Your task to perform on an android device: Clear the shopping cart on walmart.com. Image 0: 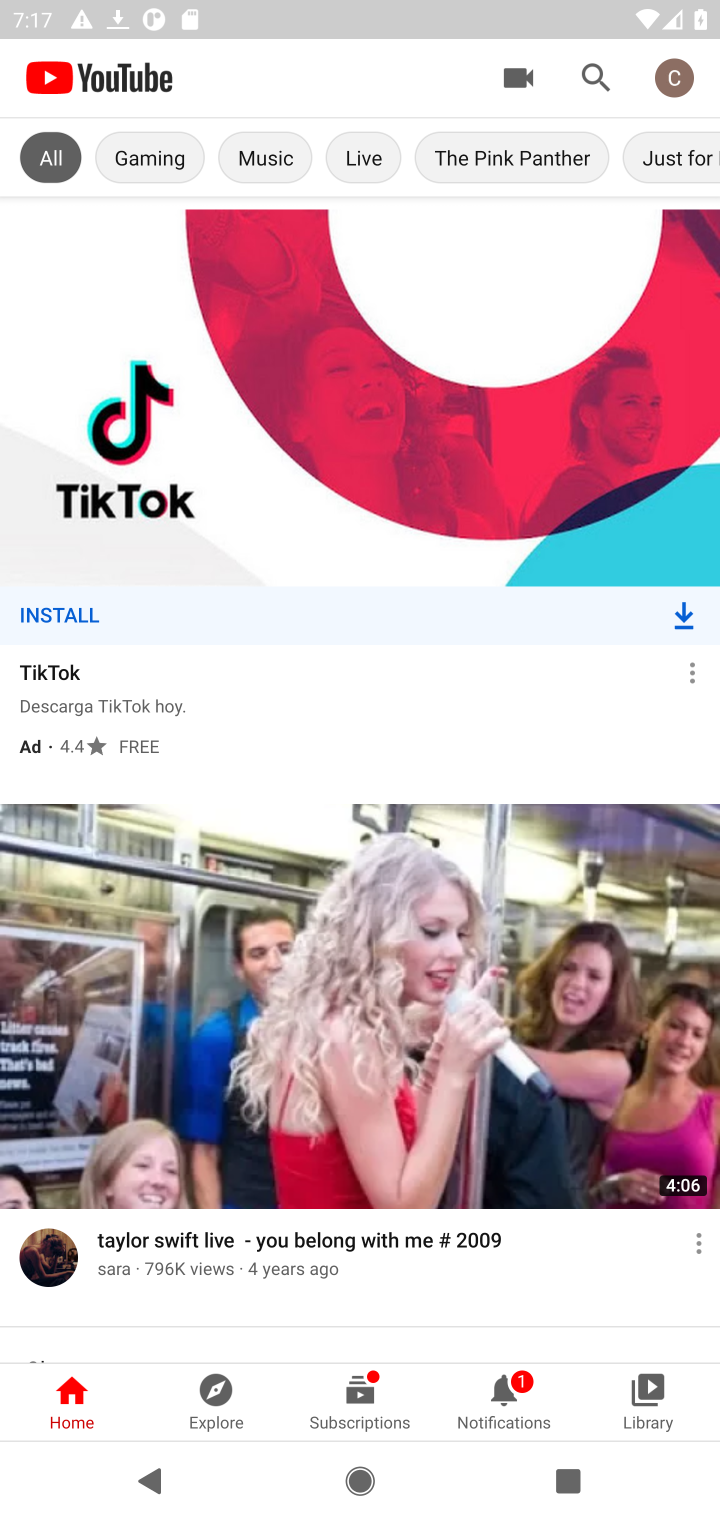
Step 0: press home button
Your task to perform on an android device: Clear the shopping cart on walmart.com. Image 1: 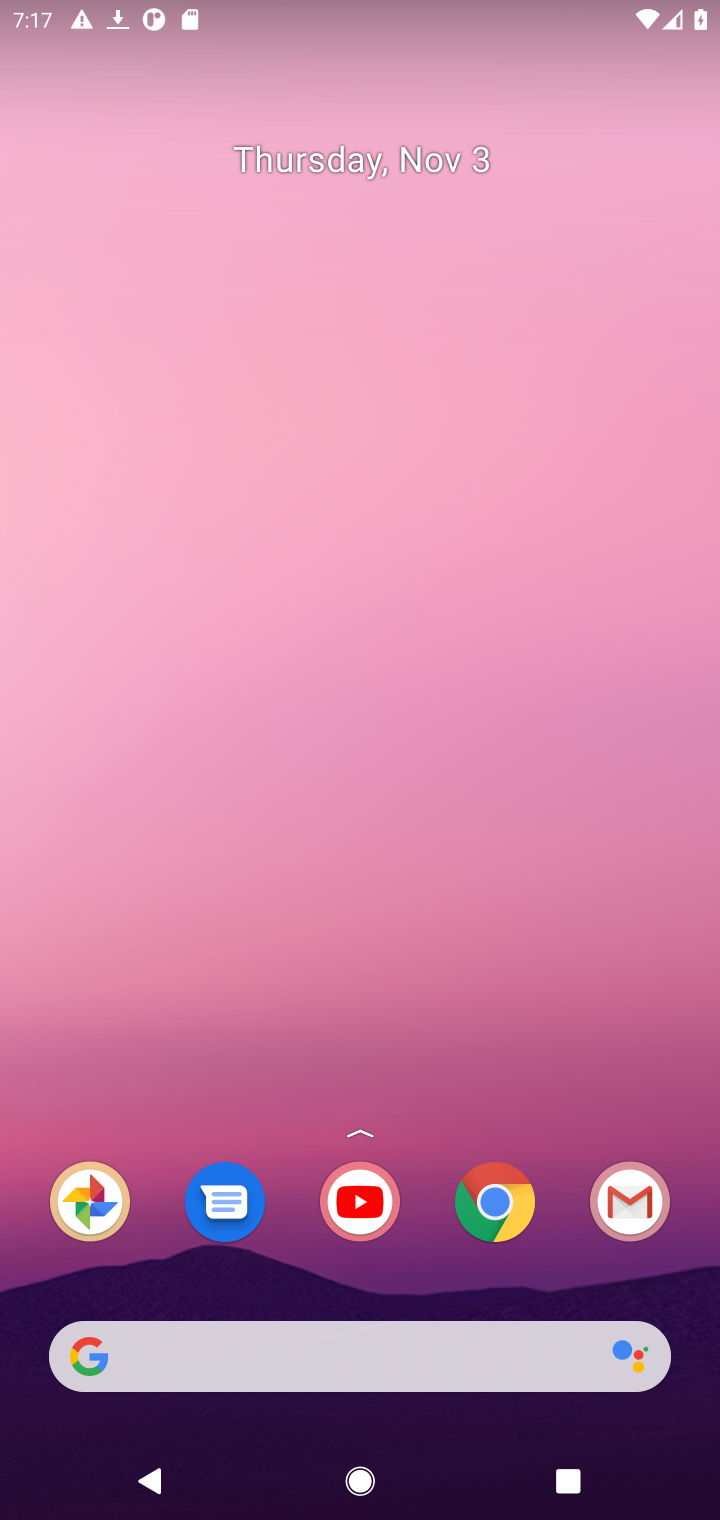
Step 1: click (129, 1347)
Your task to perform on an android device: Clear the shopping cart on walmart.com. Image 2: 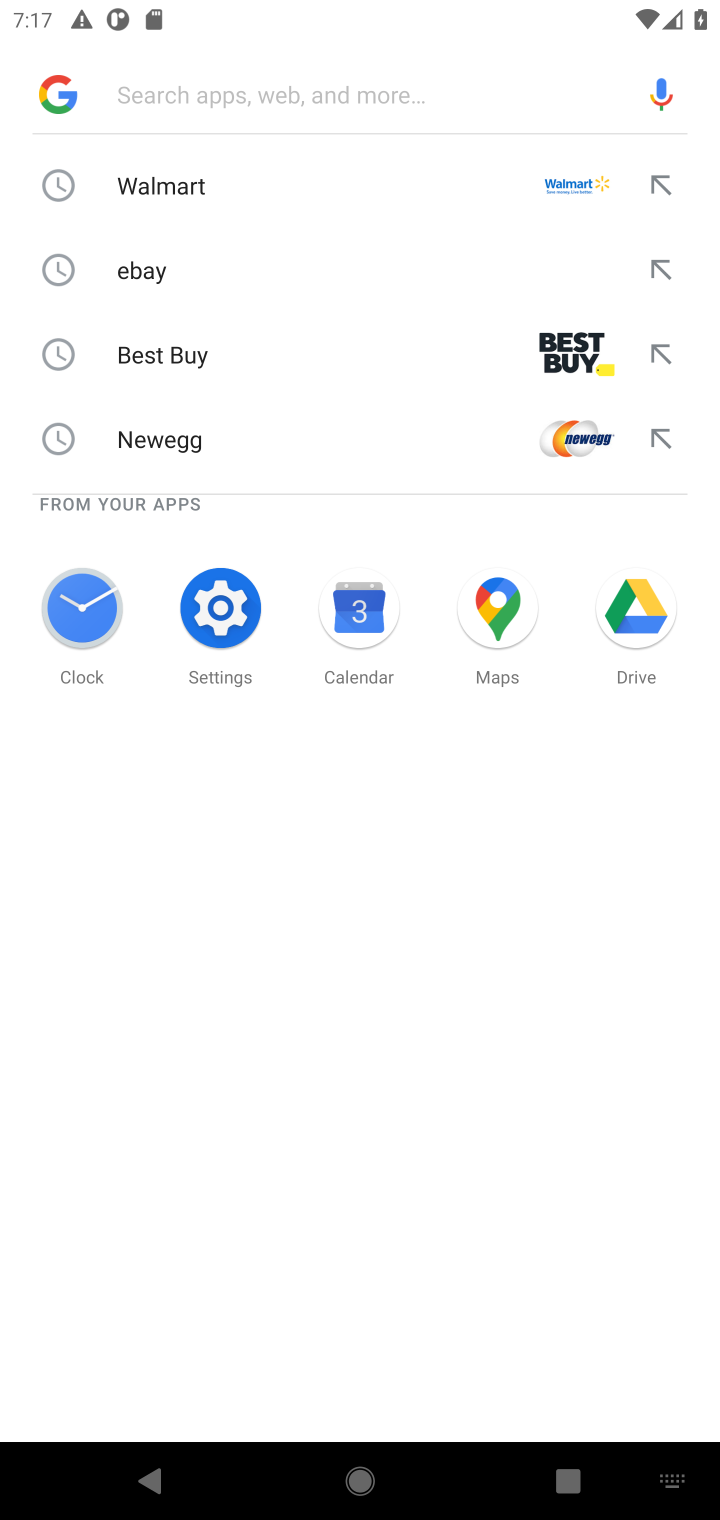
Step 2: type "walmart.com"
Your task to perform on an android device: Clear the shopping cart on walmart.com. Image 3: 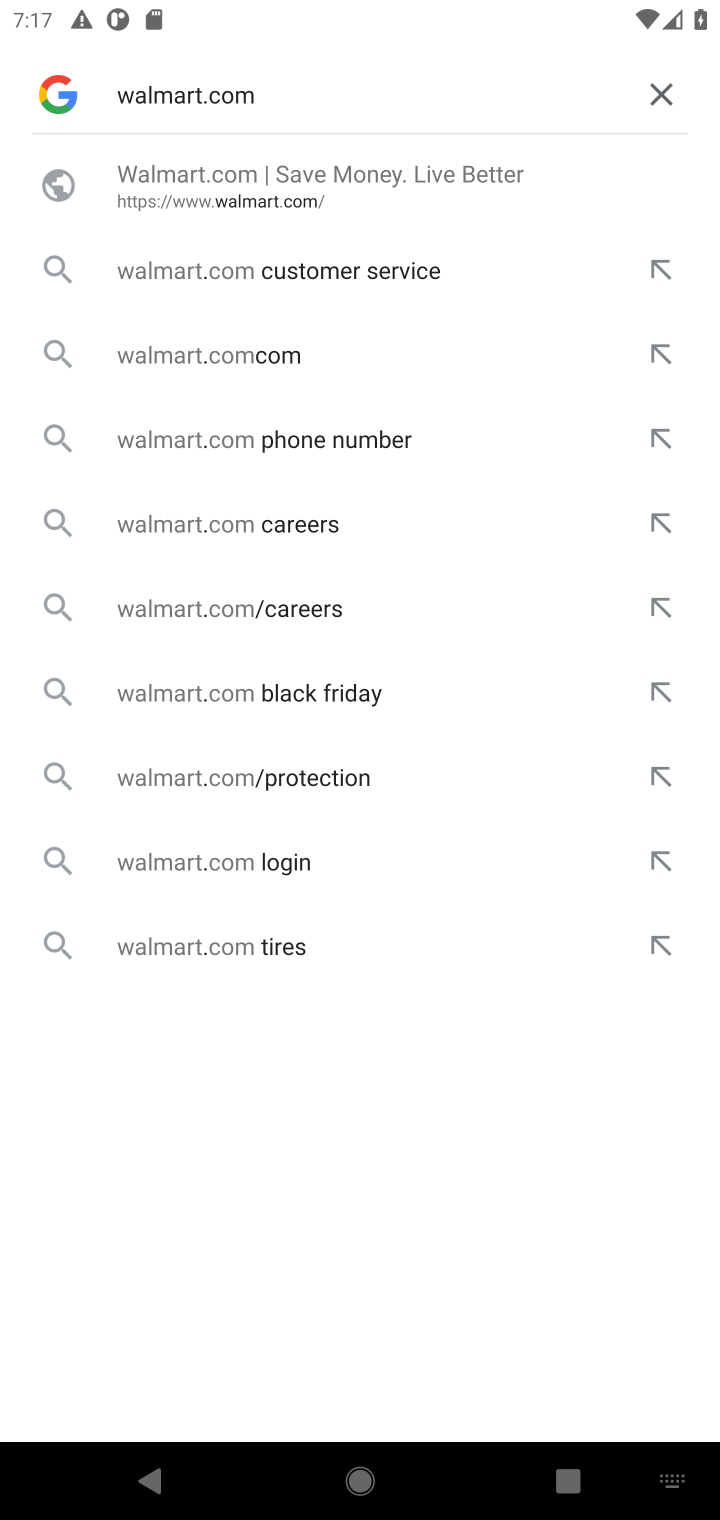
Step 3: press enter
Your task to perform on an android device: Clear the shopping cart on walmart.com. Image 4: 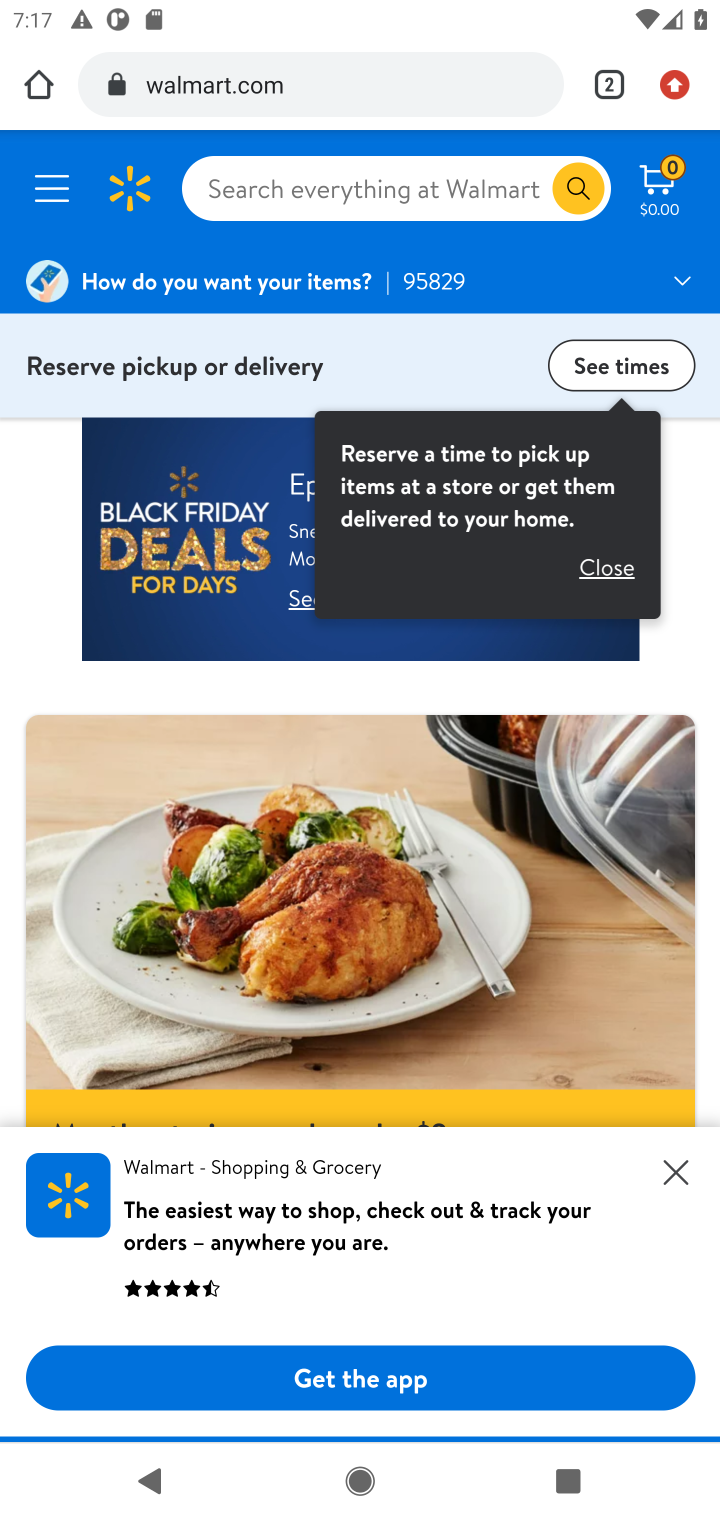
Step 4: click (660, 183)
Your task to perform on an android device: Clear the shopping cart on walmart.com. Image 5: 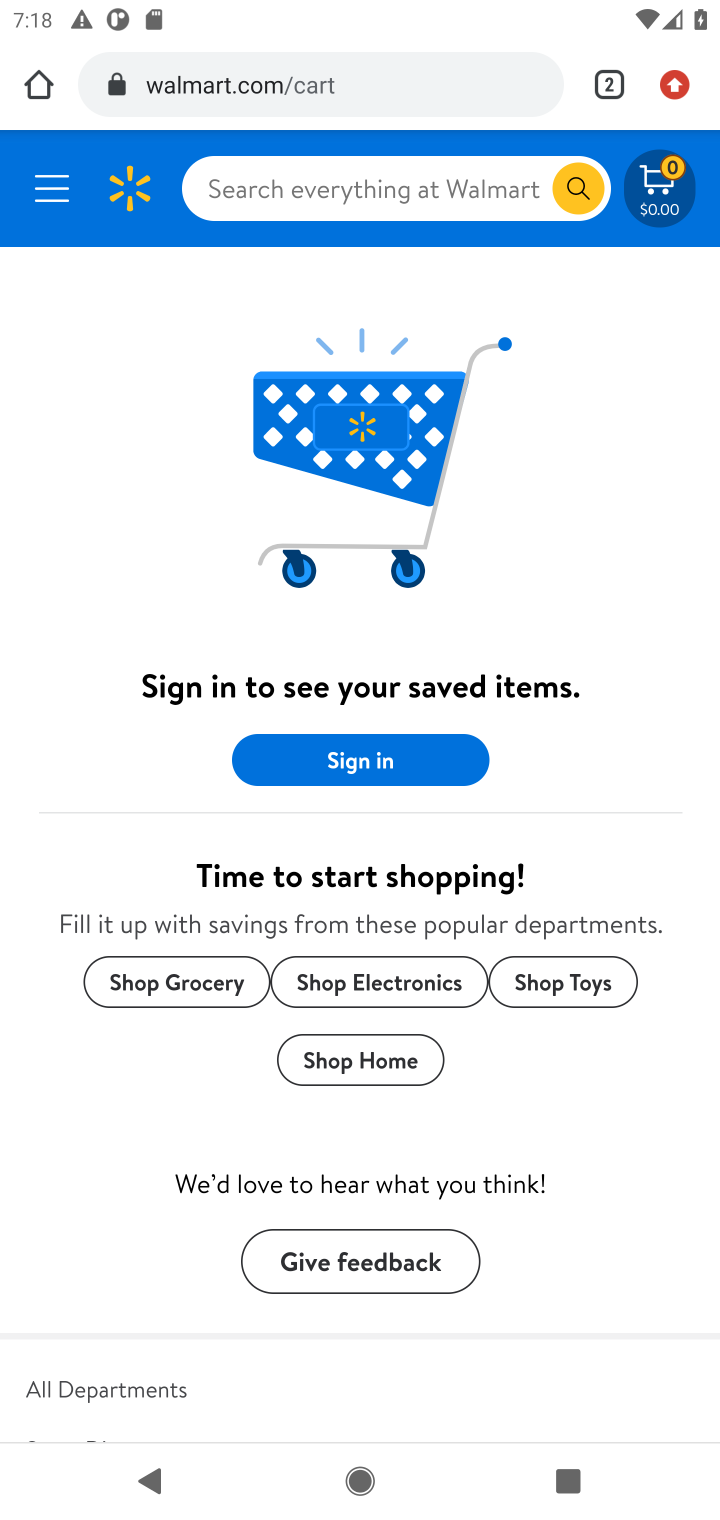
Step 5: task complete